Your task to perform on an android device: Show me the alarms in the clock app Image 0: 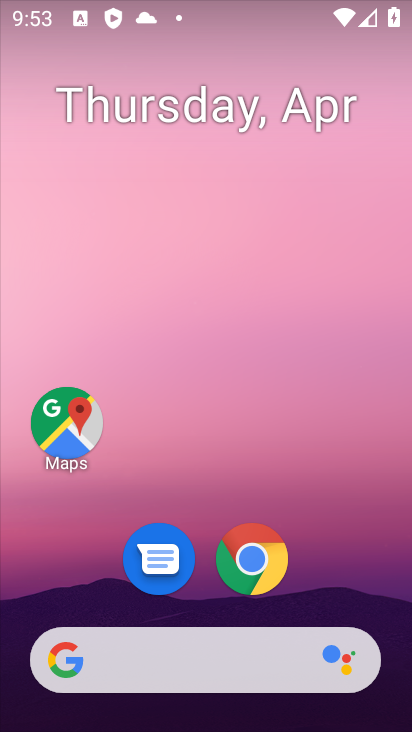
Step 0: drag from (236, 728) to (118, 53)
Your task to perform on an android device: Show me the alarms in the clock app Image 1: 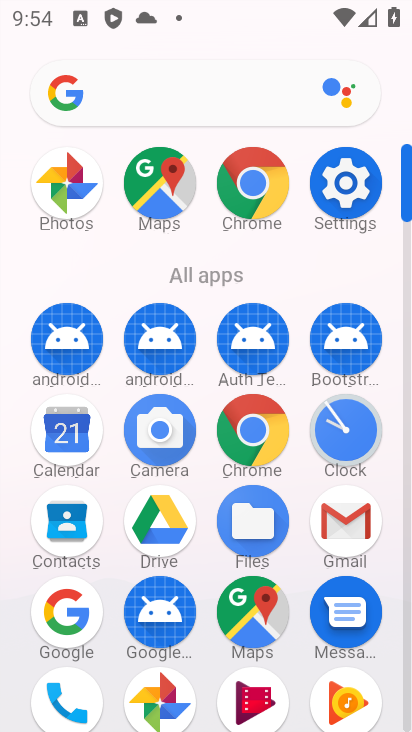
Step 1: click (357, 421)
Your task to perform on an android device: Show me the alarms in the clock app Image 2: 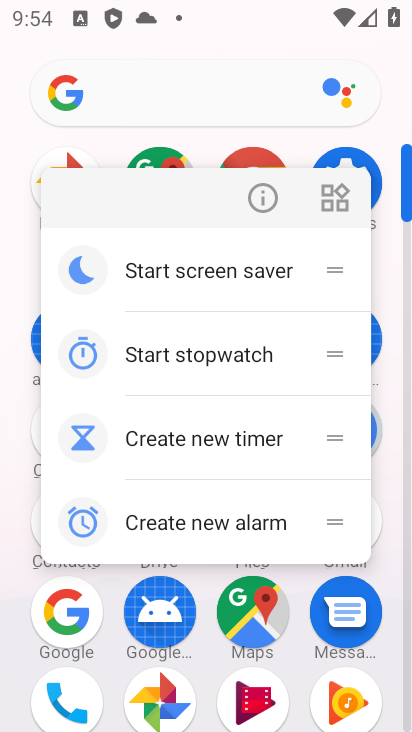
Step 2: click (377, 436)
Your task to perform on an android device: Show me the alarms in the clock app Image 3: 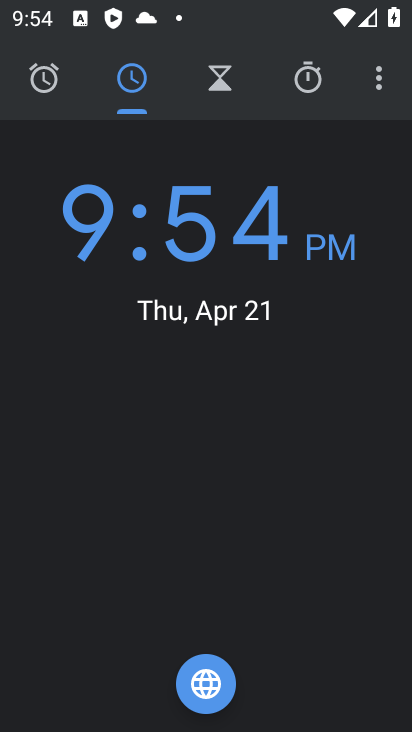
Step 3: click (52, 68)
Your task to perform on an android device: Show me the alarms in the clock app Image 4: 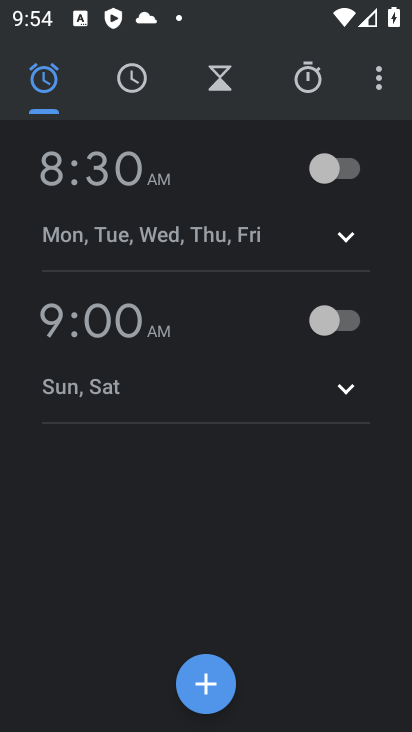
Step 4: task complete